Your task to perform on an android device: turn off airplane mode Image 0: 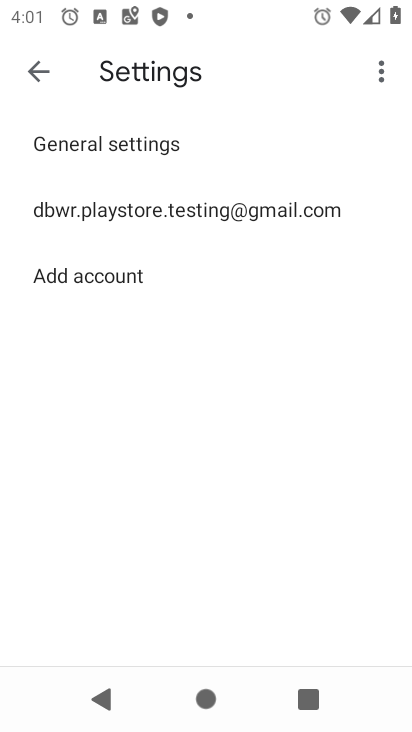
Step 0: press home button
Your task to perform on an android device: turn off airplane mode Image 1: 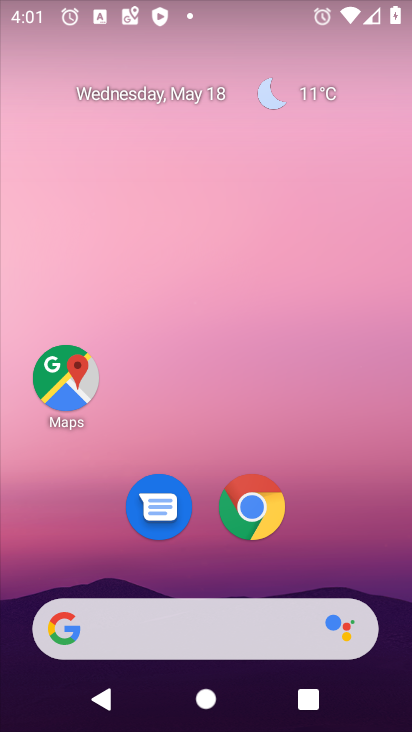
Step 1: drag from (396, 619) to (336, 215)
Your task to perform on an android device: turn off airplane mode Image 2: 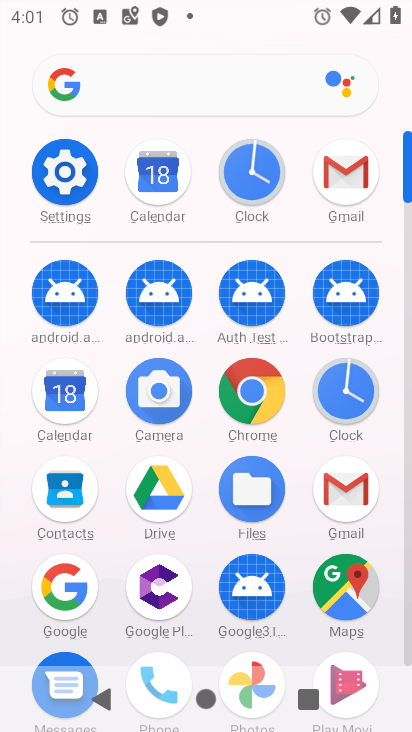
Step 2: click (407, 648)
Your task to perform on an android device: turn off airplane mode Image 3: 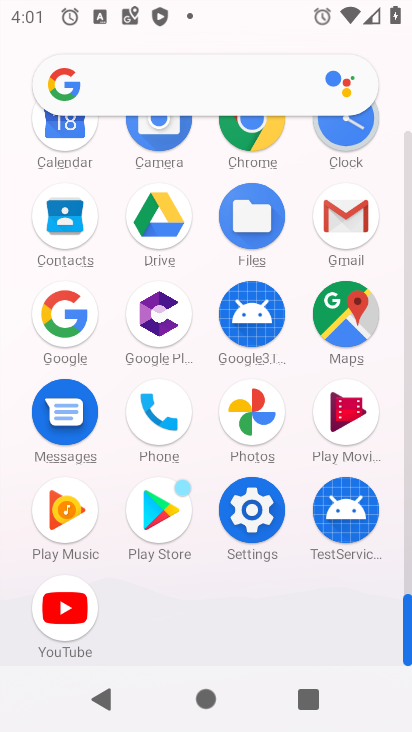
Step 3: click (253, 505)
Your task to perform on an android device: turn off airplane mode Image 4: 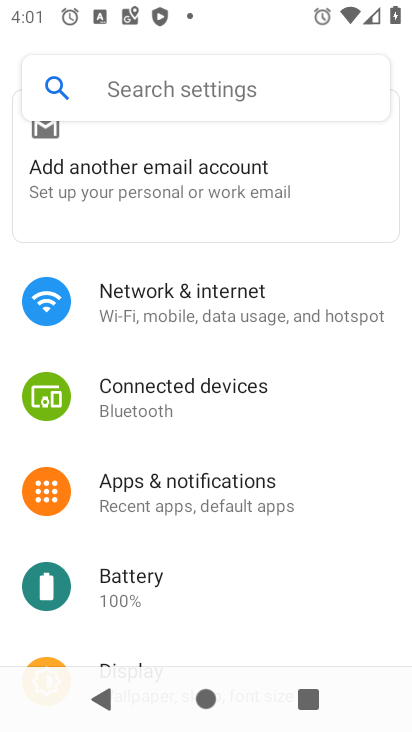
Step 4: click (166, 294)
Your task to perform on an android device: turn off airplane mode Image 5: 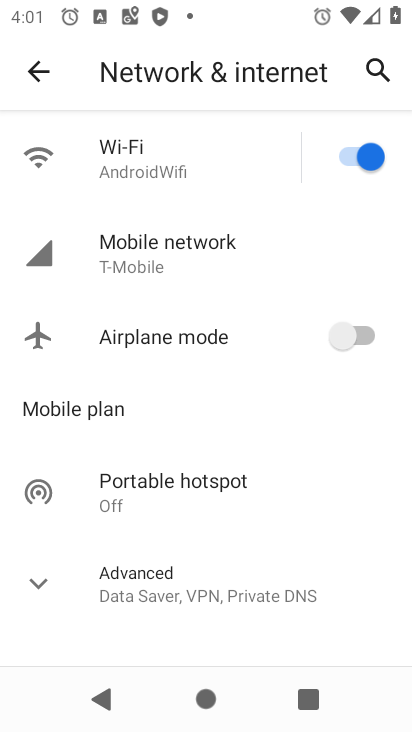
Step 5: task complete